Your task to perform on an android device: show emergency info Image 0: 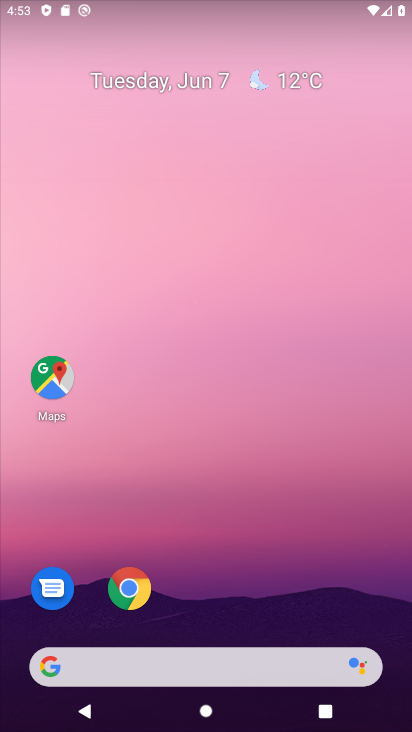
Step 0: drag from (236, 602) to (321, 0)
Your task to perform on an android device: show emergency info Image 1: 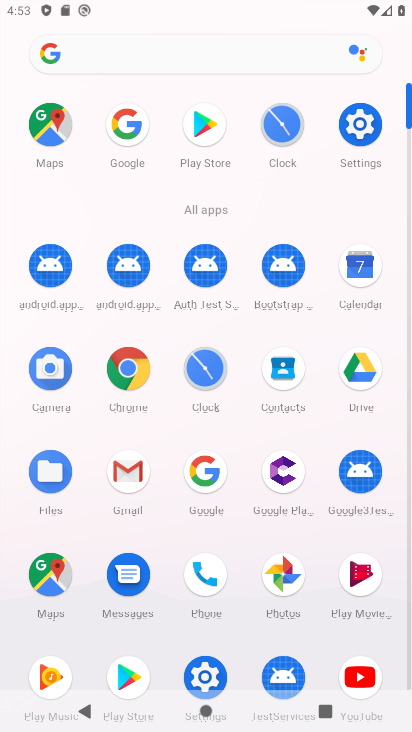
Step 1: click (358, 132)
Your task to perform on an android device: show emergency info Image 2: 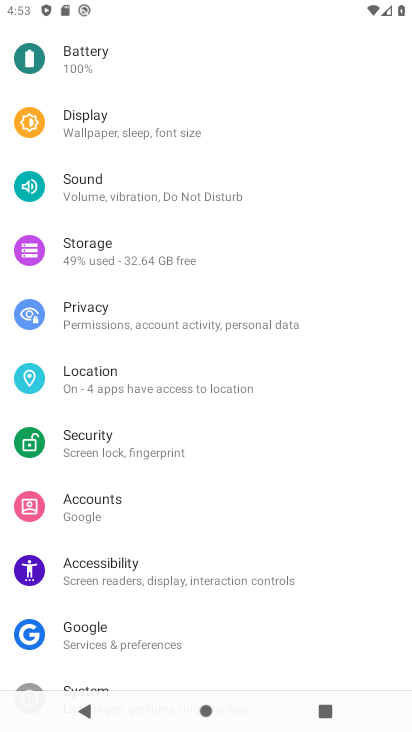
Step 2: drag from (158, 270) to (160, 565)
Your task to perform on an android device: show emergency info Image 3: 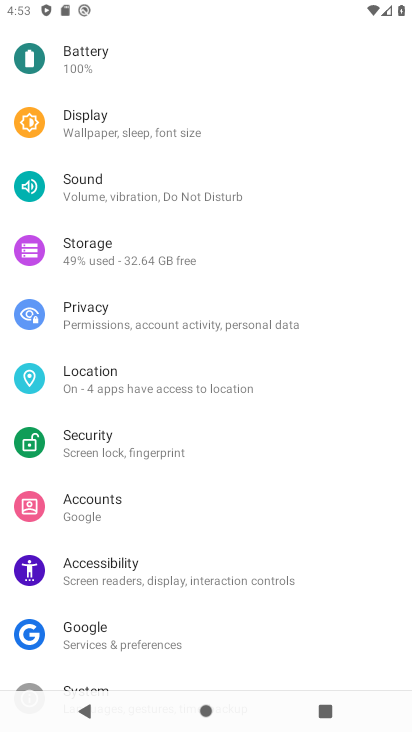
Step 3: drag from (130, 233) to (142, 604)
Your task to perform on an android device: show emergency info Image 4: 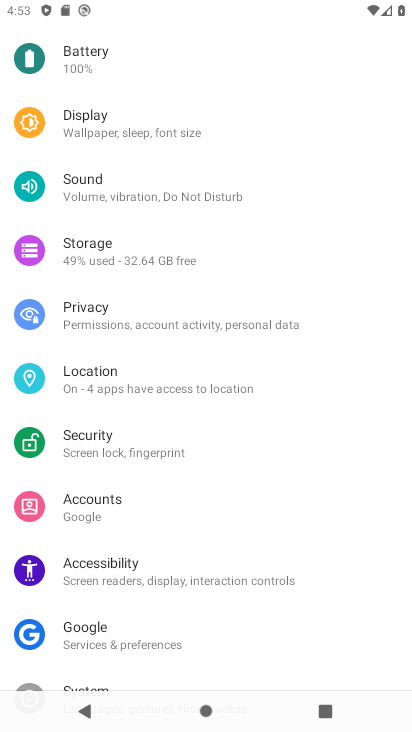
Step 4: click (236, 624)
Your task to perform on an android device: show emergency info Image 5: 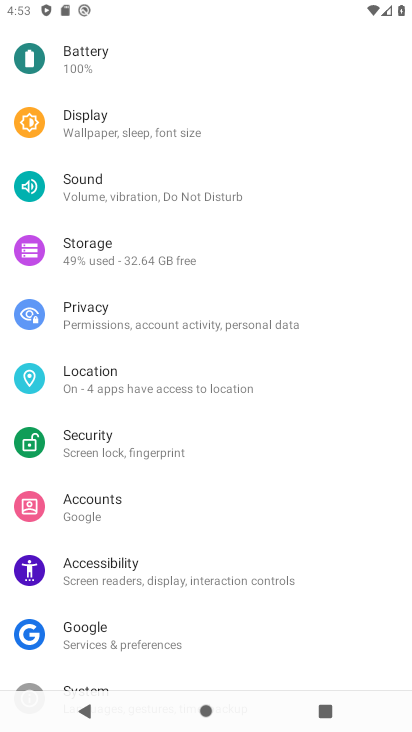
Step 5: drag from (153, 607) to (170, 148)
Your task to perform on an android device: show emergency info Image 6: 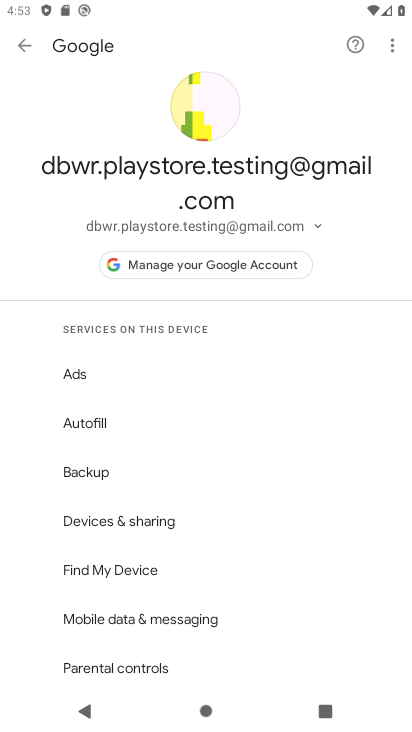
Step 6: press back button
Your task to perform on an android device: show emergency info Image 7: 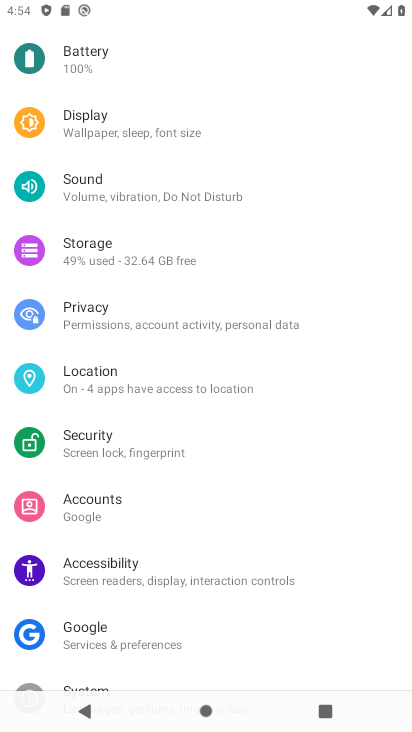
Step 7: drag from (120, 651) to (184, 224)
Your task to perform on an android device: show emergency info Image 8: 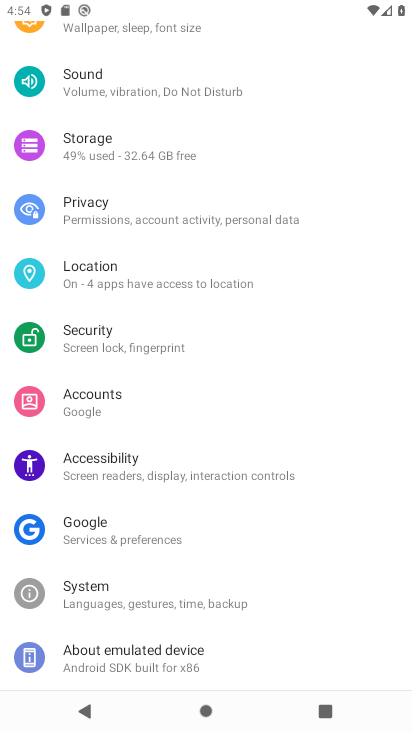
Step 8: click (148, 661)
Your task to perform on an android device: show emergency info Image 9: 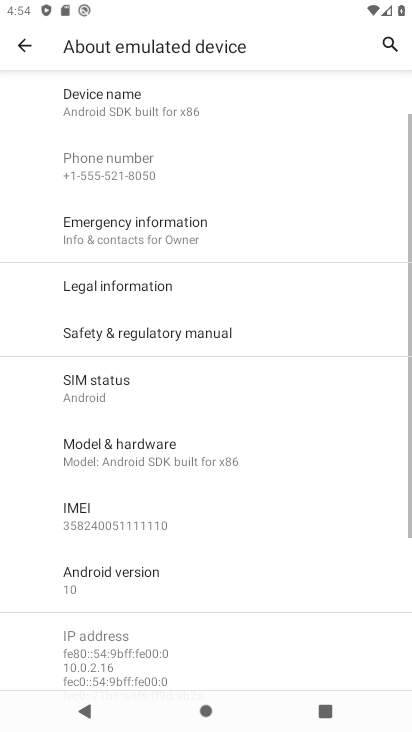
Step 9: click (91, 250)
Your task to perform on an android device: show emergency info Image 10: 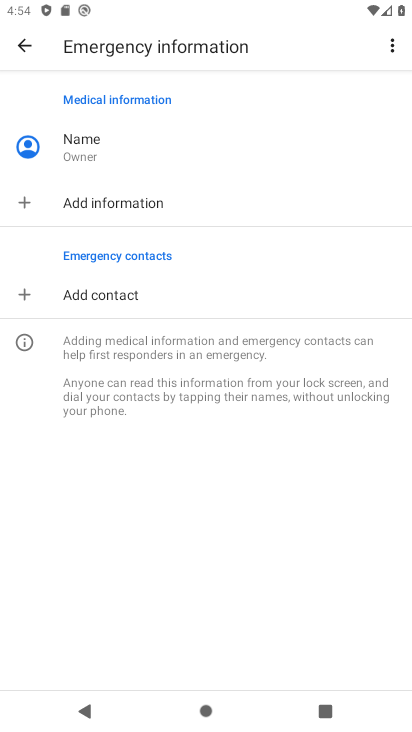
Step 10: task complete